Your task to perform on an android device: Do I have any events tomorrow? Image 0: 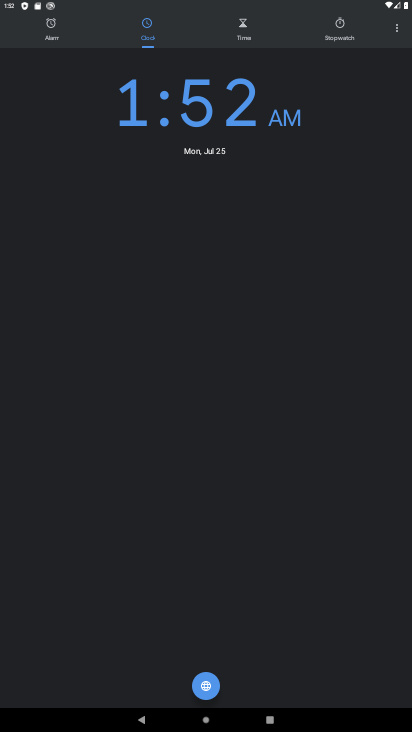
Step 0: press home button
Your task to perform on an android device: Do I have any events tomorrow? Image 1: 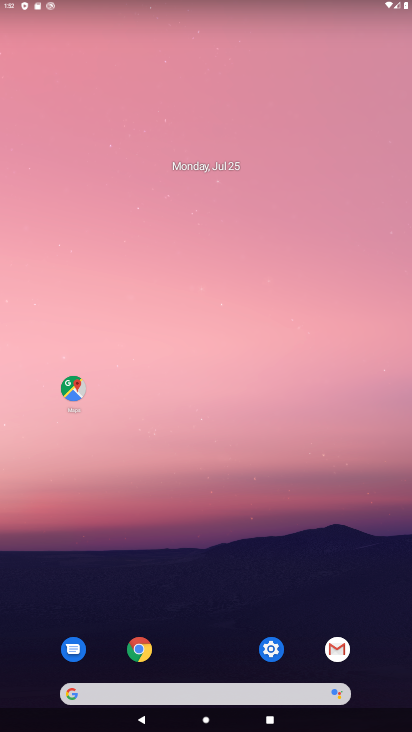
Step 1: drag from (239, 711) to (221, 171)
Your task to perform on an android device: Do I have any events tomorrow? Image 2: 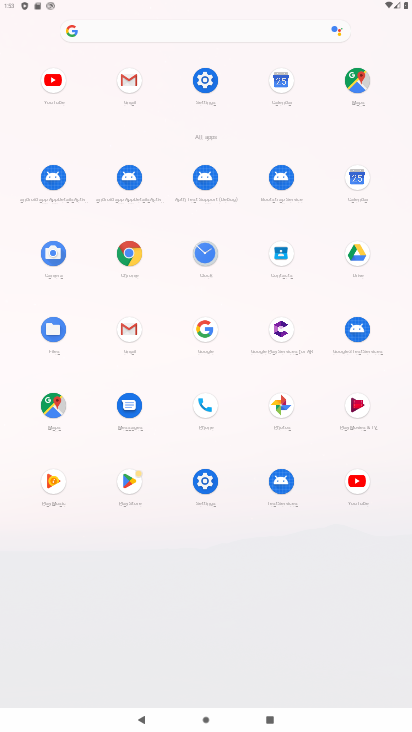
Step 2: click (338, 175)
Your task to perform on an android device: Do I have any events tomorrow? Image 3: 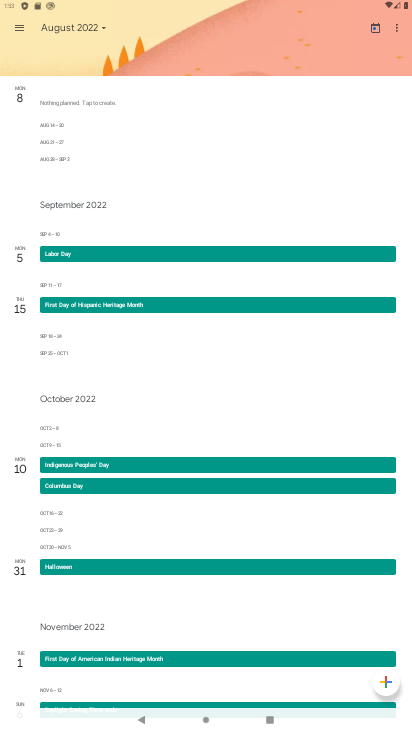
Step 3: click (14, 29)
Your task to perform on an android device: Do I have any events tomorrow? Image 4: 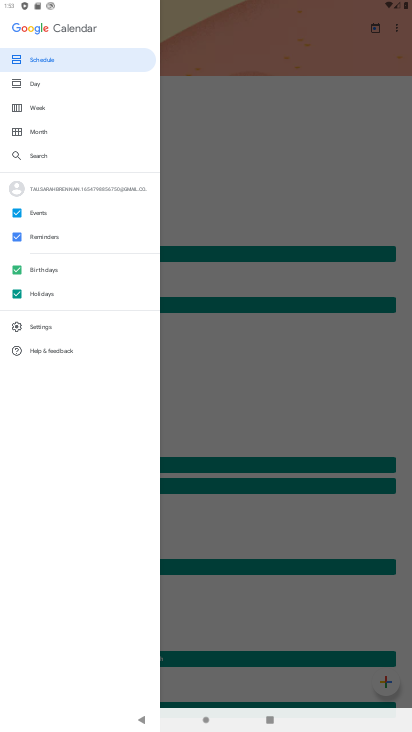
Step 4: click (40, 138)
Your task to perform on an android device: Do I have any events tomorrow? Image 5: 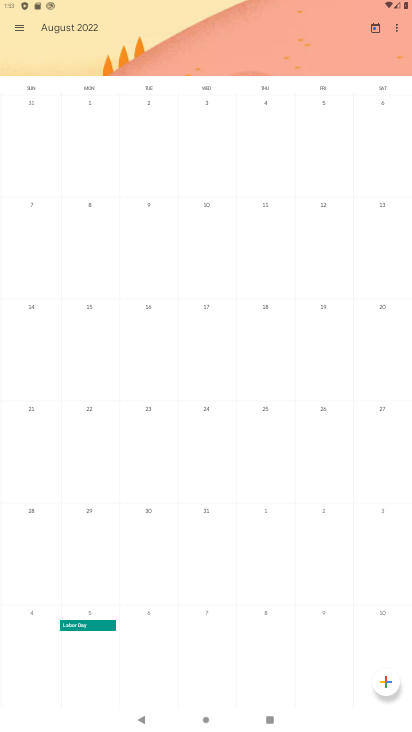
Step 5: drag from (71, 400) to (405, 400)
Your task to perform on an android device: Do I have any events tomorrow? Image 6: 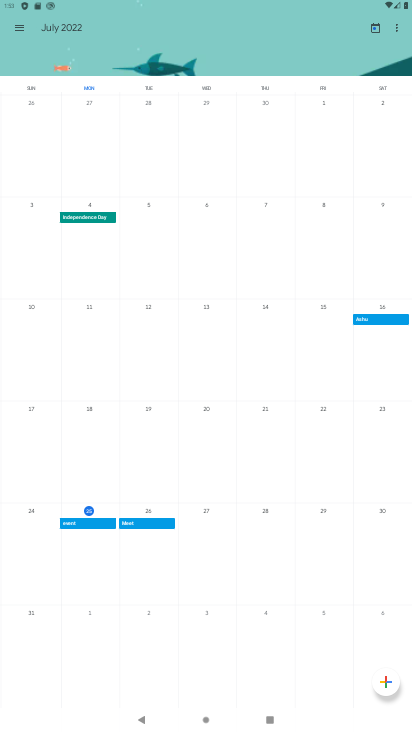
Step 6: click (132, 518)
Your task to perform on an android device: Do I have any events tomorrow? Image 7: 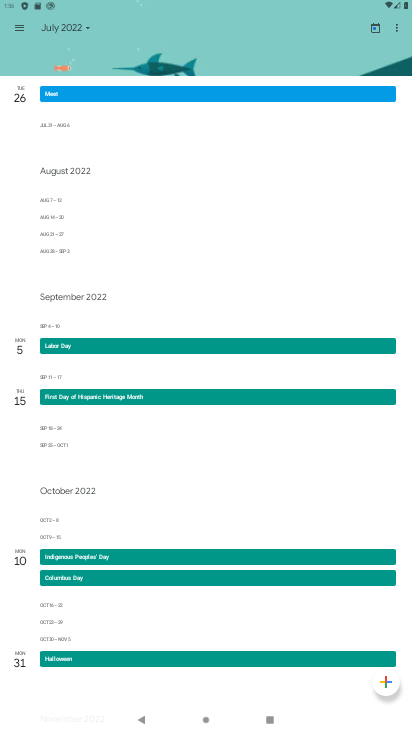
Step 7: task complete